Your task to perform on an android device: turn notification dots on Image 0: 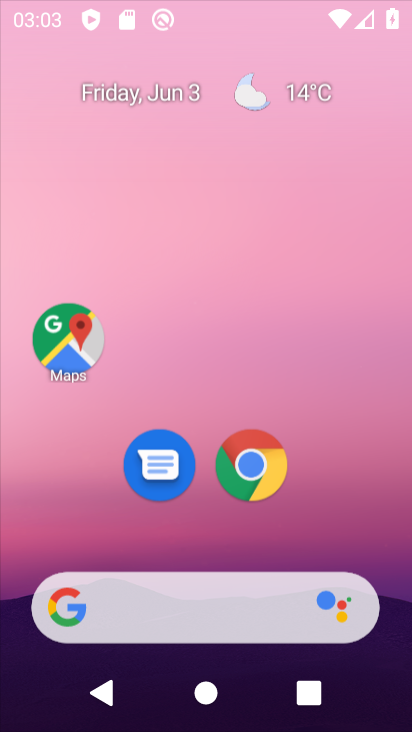
Step 0: press home button
Your task to perform on an android device: turn notification dots on Image 1: 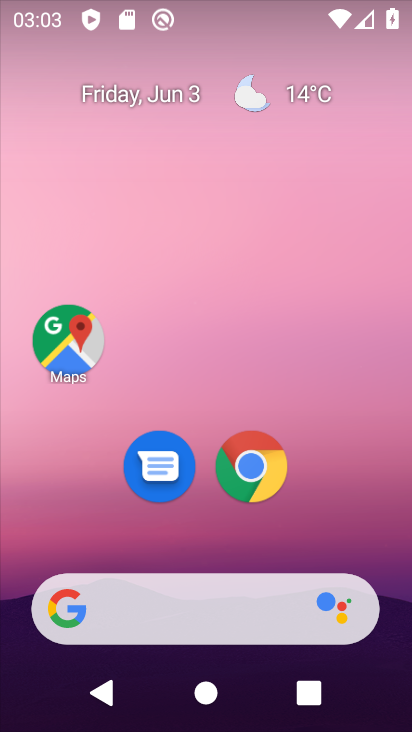
Step 1: drag from (209, 553) to (250, 114)
Your task to perform on an android device: turn notification dots on Image 2: 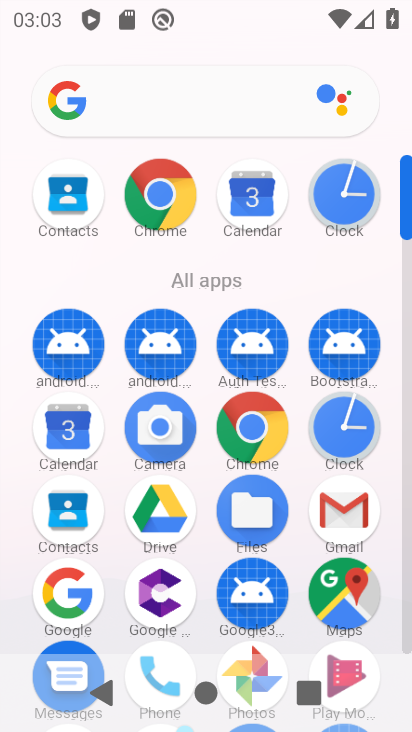
Step 2: drag from (204, 558) to (240, 90)
Your task to perform on an android device: turn notification dots on Image 3: 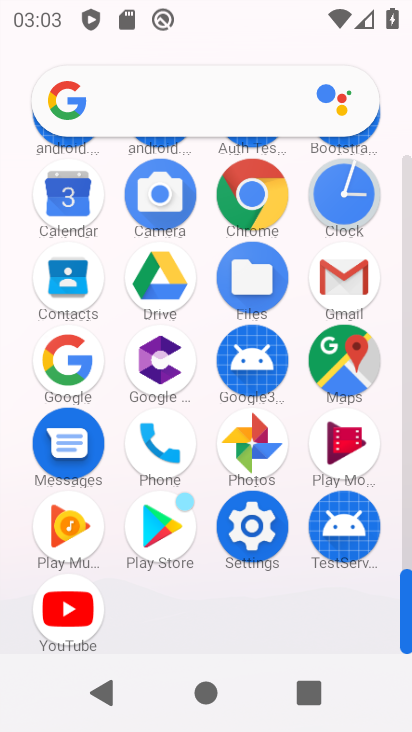
Step 3: click (250, 520)
Your task to perform on an android device: turn notification dots on Image 4: 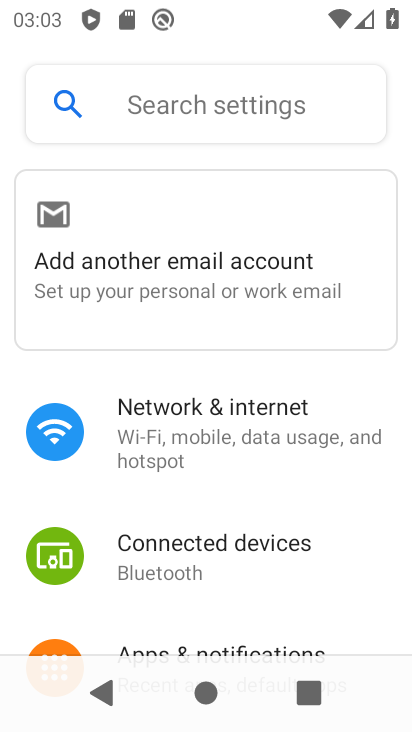
Step 4: click (261, 637)
Your task to perform on an android device: turn notification dots on Image 5: 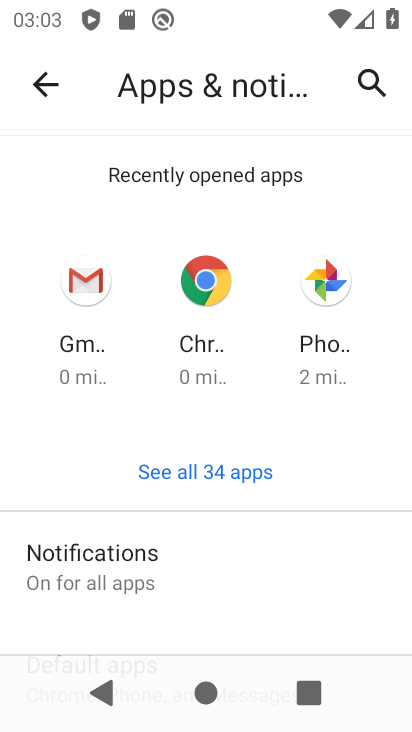
Step 5: click (174, 561)
Your task to perform on an android device: turn notification dots on Image 6: 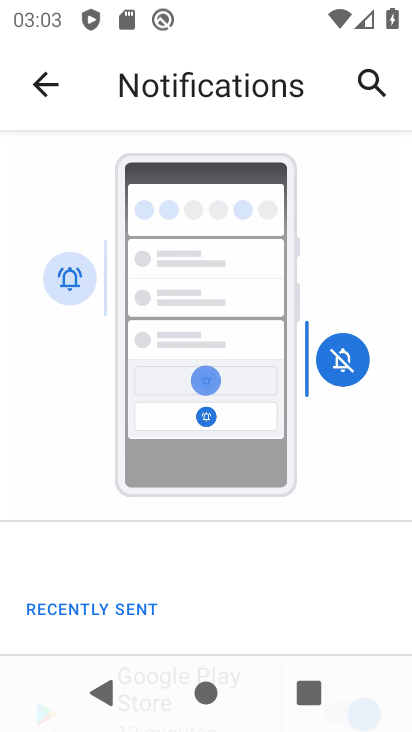
Step 6: drag from (232, 614) to (274, 165)
Your task to perform on an android device: turn notification dots on Image 7: 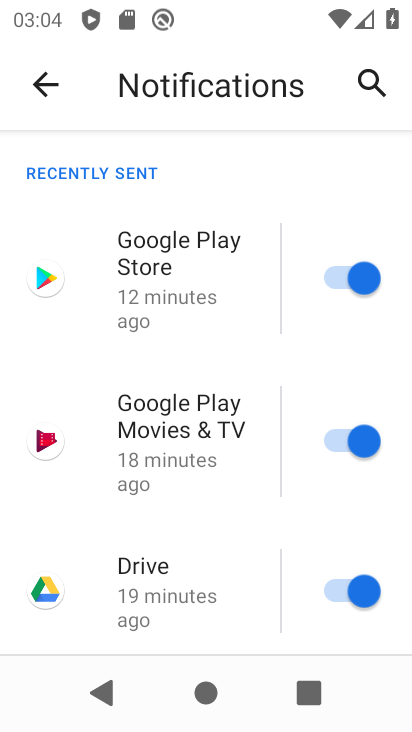
Step 7: drag from (240, 571) to (243, 219)
Your task to perform on an android device: turn notification dots on Image 8: 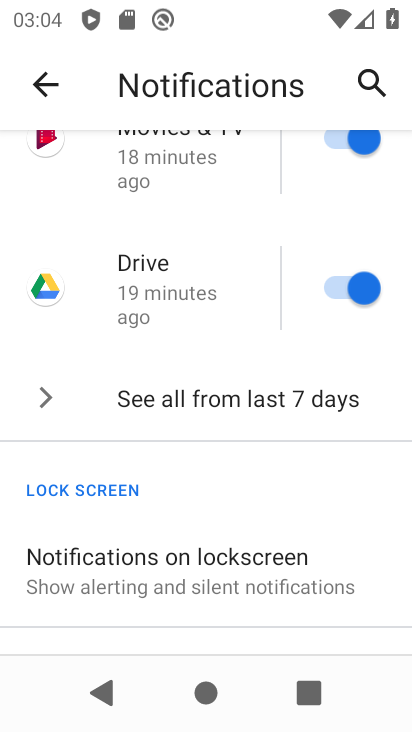
Step 8: drag from (199, 595) to (207, 180)
Your task to perform on an android device: turn notification dots on Image 9: 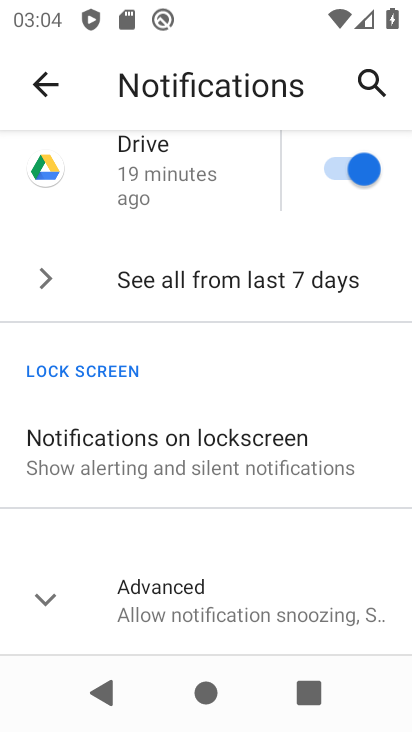
Step 9: click (51, 601)
Your task to perform on an android device: turn notification dots on Image 10: 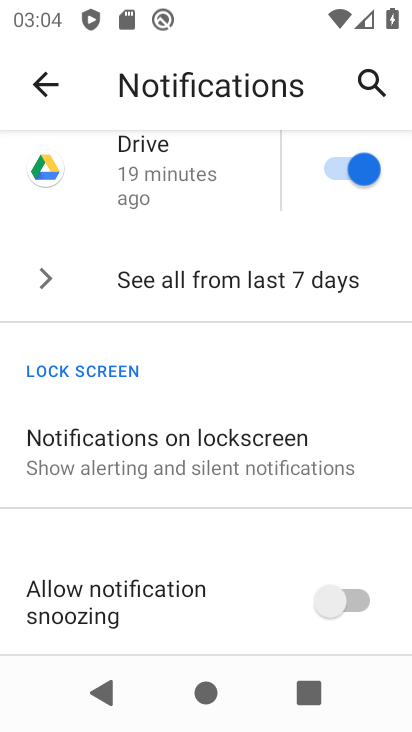
Step 10: click (209, 634)
Your task to perform on an android device: turn notification dots on Image 11: 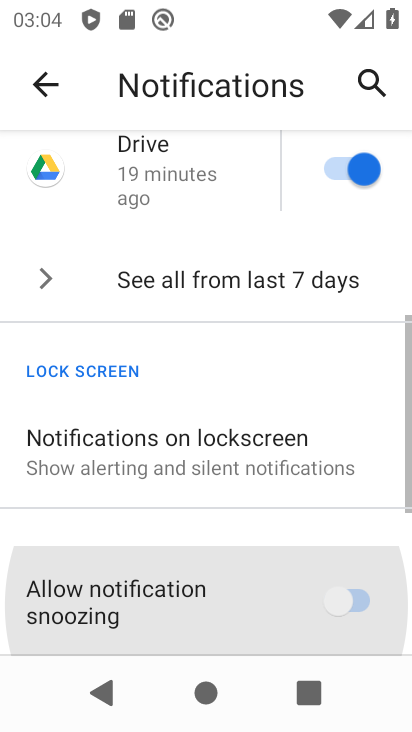
Step 11: task complete